Your task to perform on an android device: turn off wifi Image 0: 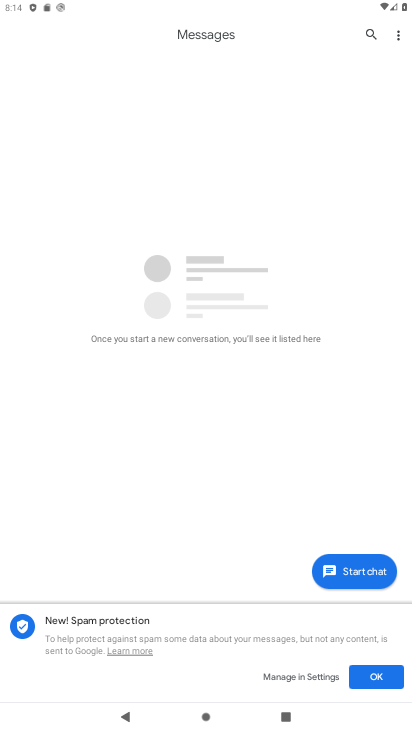
Step 0: press home button
Your task to perform on an android device: turn off wifi Image 1: 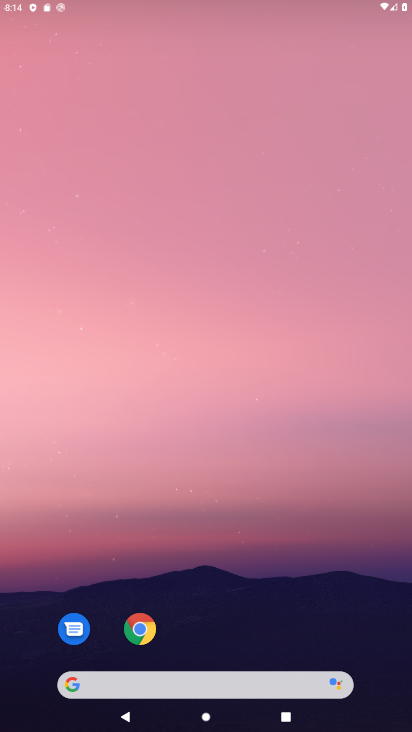
Step 1: drag from (256, 75) to (203, 687)
Your task to perform on an android device: turn off wifi Image 2: 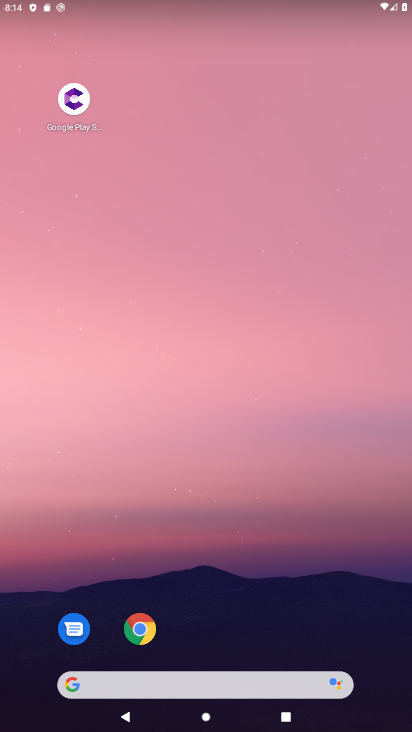
Step 2: drag from (210, 2) to (229, 398)
Your task to perform on an android device: turn off wifi Image 3: 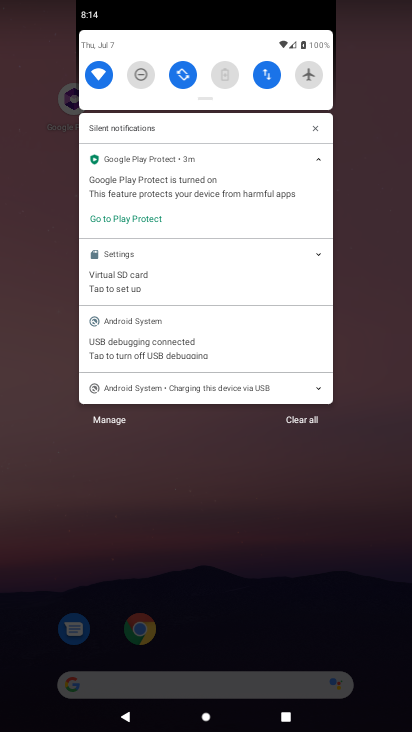
Step 3: drag from (301, 100) to (289, 514)
Your task to perform on an android device: turn off wifi Image 4: 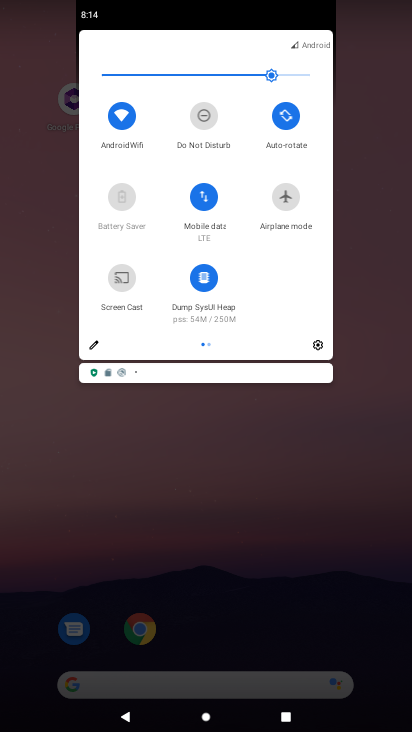
Step 4: click (126, 120)
Your task to perform on an android device: turn off wifi Image 5: 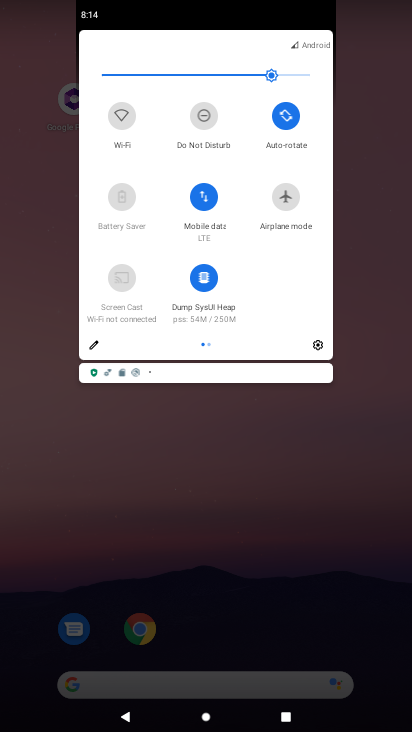
Step 5: task complete